Your task to perform on an android device: Open Google Chrome and click the shortcut for Amazon.com Image 0: 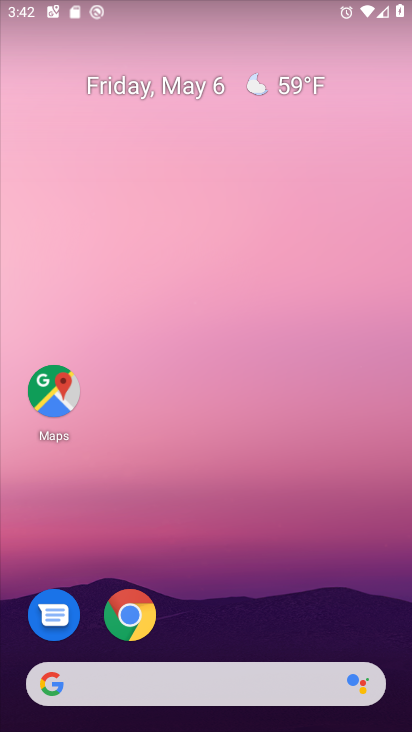
Step 0: click (132, 617)
Your task to perform on an android device: Open Google Chrome and click the shortcut for Amazon.com Image 1: 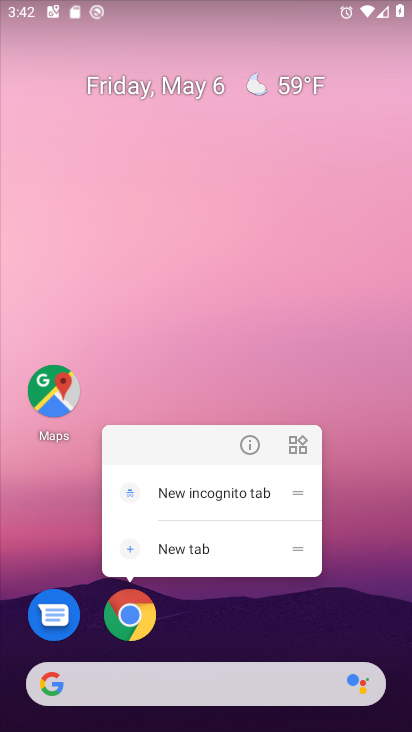
Step 1: click (132, 617)
Your task to perform on an android device: Open Google Chrome and click the shortcut for Amazon.com Image 2: 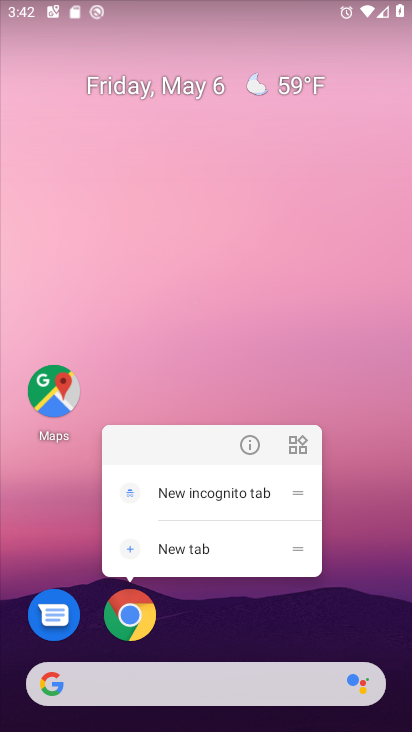
Step 2: click (132, 617)
Your task to perform on an android device: Open Google Chrome and click the shortcut for Amazon.com Image 3: 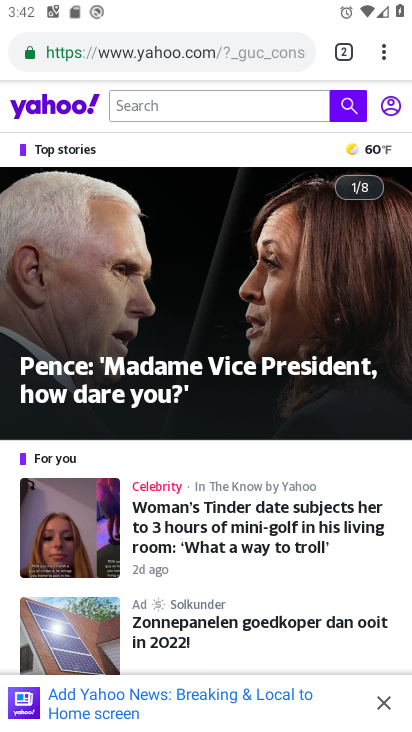
Step 3: click (386, 54)
Your task to perform on an android device: Open Google Chrome and click the shortcut for Amazon.com Image 4: 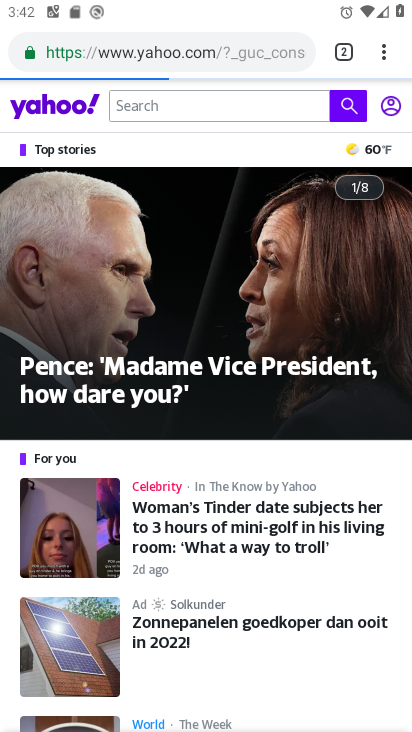
Step 4: drag from (386, 54) to (198, 107)
Your task to perform on an android device: Open Google Chrome and click the shortcut for Amazon.com Image 5: 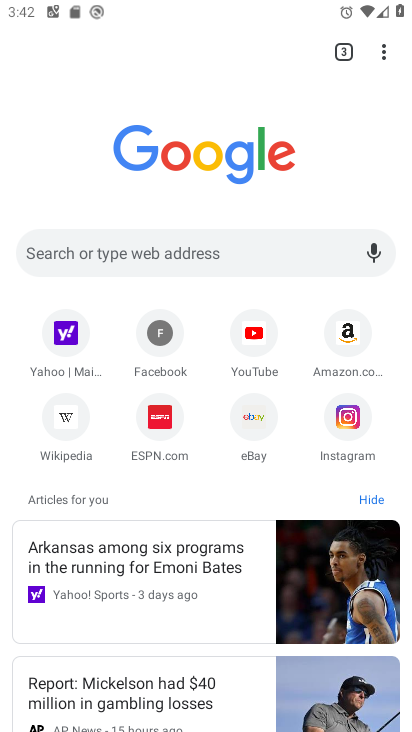
Step 5: click (345, 337)
Your task to perform on an android device: Open Google Chrome and click the shortcut for Amazon.com Image 6: 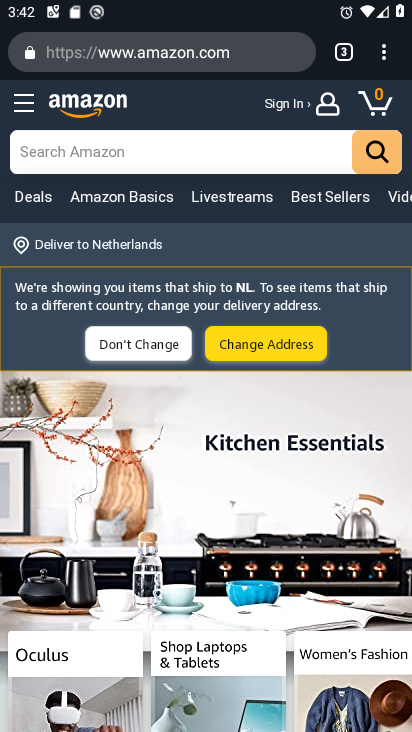
Step 6: task complete